Your task to perform on an android device: Show me popular games on the Play Store Image 0: 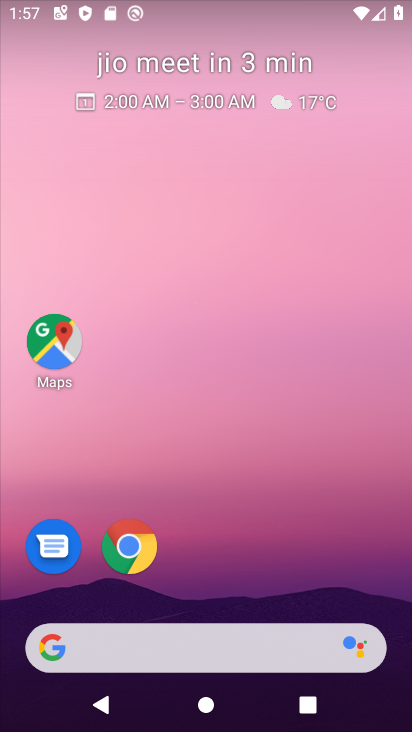
Step 0: drag from (342, 583) to (306, 143)
Your task to perform on an android device: Show me popular games on the Play Store Image 1: 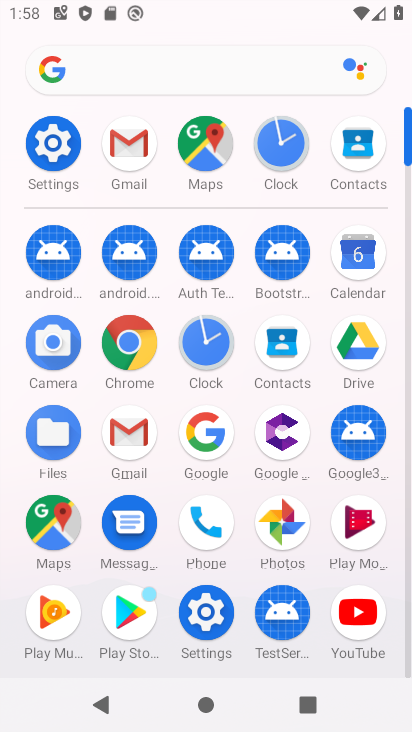
Step 1: click (138, 592)
Your task to perform on an android device: Show me popular games on the Play Store Image 2: 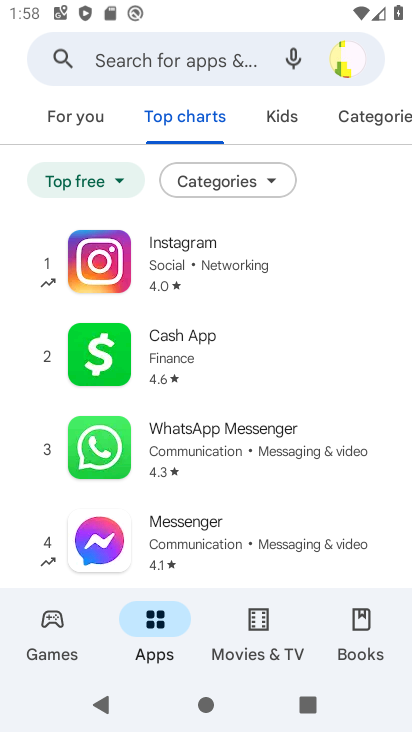
Step 2: click (38, 649)
Your task to perform on an android device: Show me popular games on the Play Store Image 3: 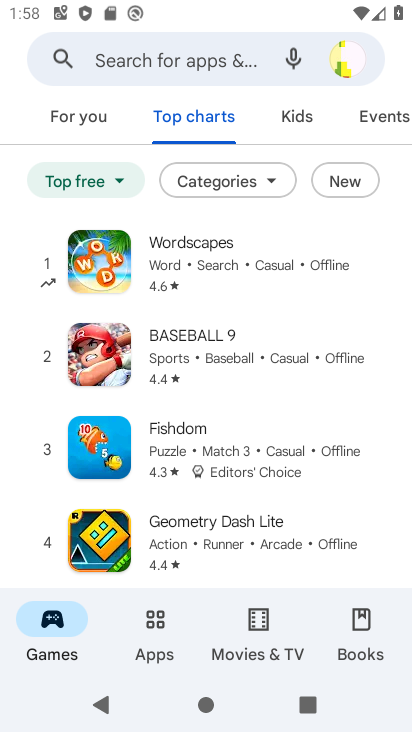
Step 3: task complete